Your task to perform on an android device: open device folders in google photos Image 0: 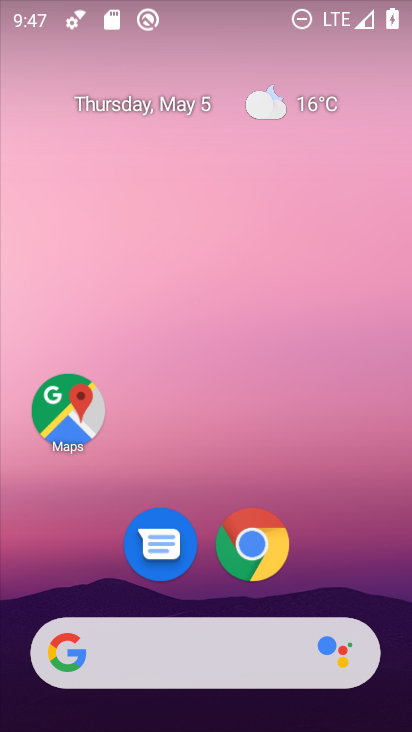
Step 0: drag from (382, 630) to (235, 139)
Your task to perform on an android device: open device folders in google photos Image 1: 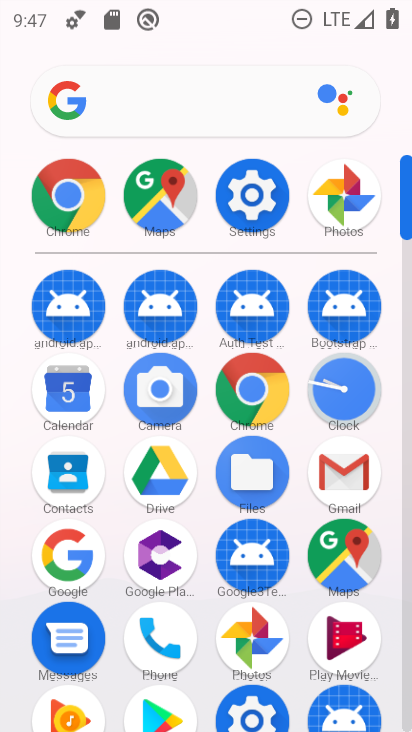
Step 1: click (252, 659)
Your task to perform on an android device: open device folders in google photos Image 2: 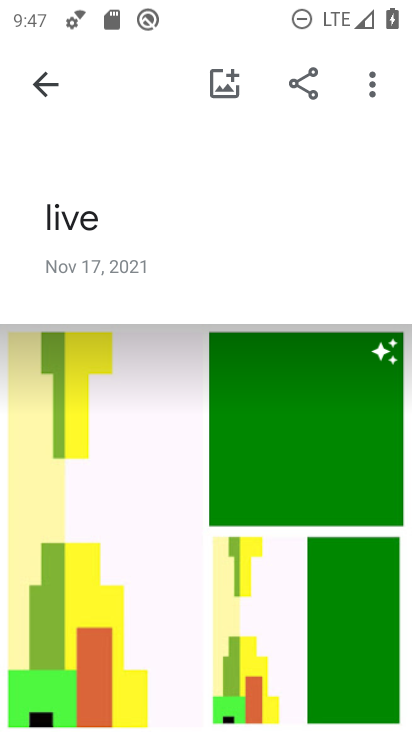
Step 2: click (37, 81)
Your task to perform on an android device: open device folders in google photos Image 3: 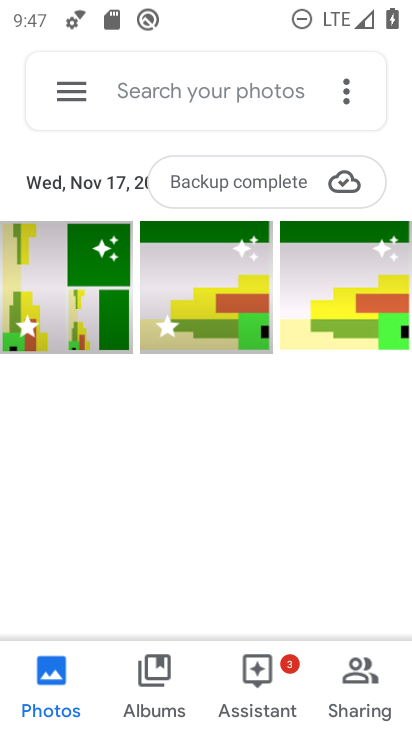
Step 3: click (64, 84)
Your task to perform on an android device: open device folders in google photos Image 4: 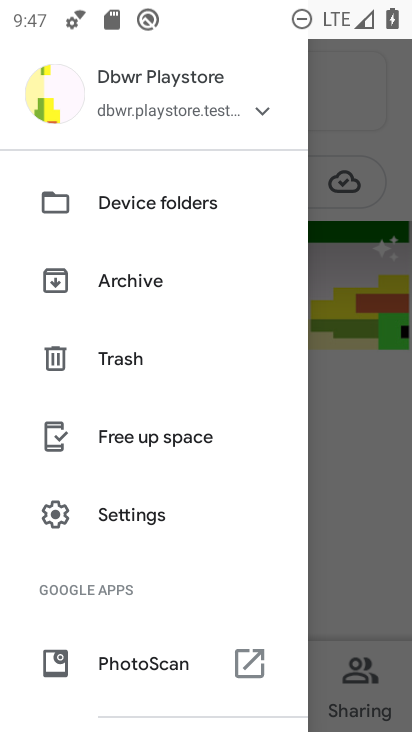
Step 4: click (153, 206)
Your task to perform on an android device: open device folders in google photos Image 5: 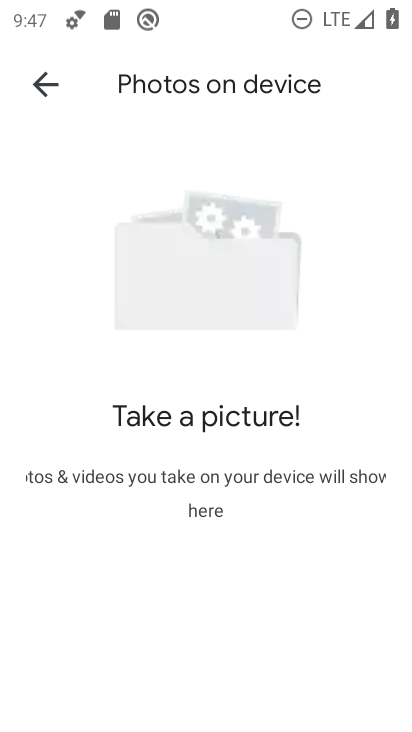
Step 5: task complete